Your task to perform on an android device: Open my contact list Image 0: 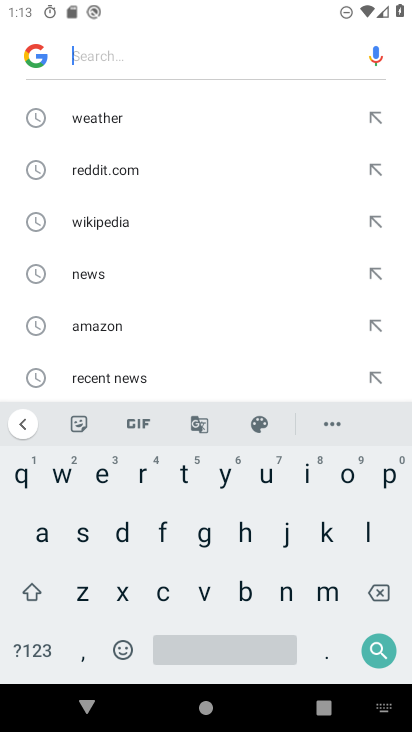
Step 0: press home button
Your task to perform on an android device: Open my contact list Image 1: 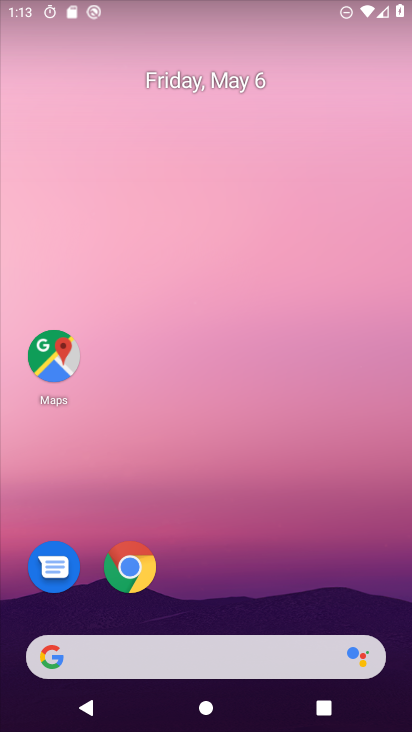
Step 1: drag from (251, 696) to (294, 209)
Your task to perform on an android device: Open my contact list Image 2: 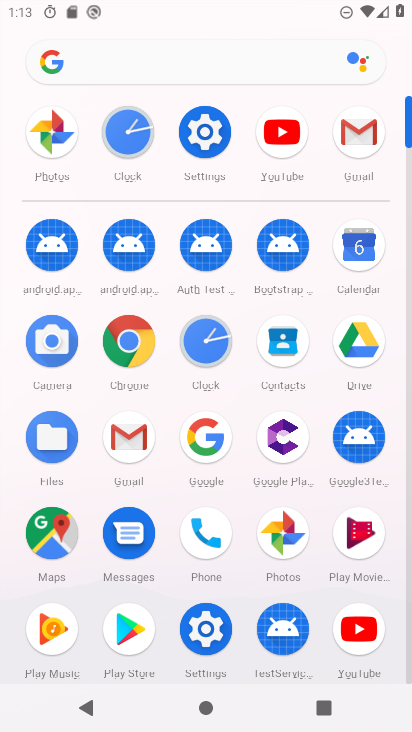
Step 2: click (211, 532)
Your task to perform on an android device: Open my contact list Image 3: 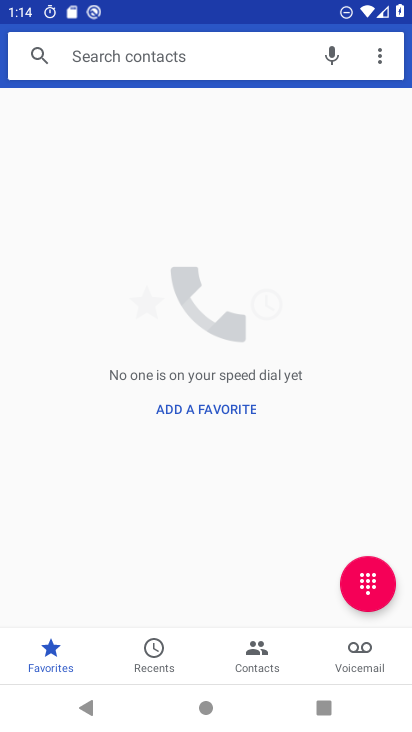
Step 3: click (254, 645)
Your task to perform on an android device: Open my contact list Image 4: 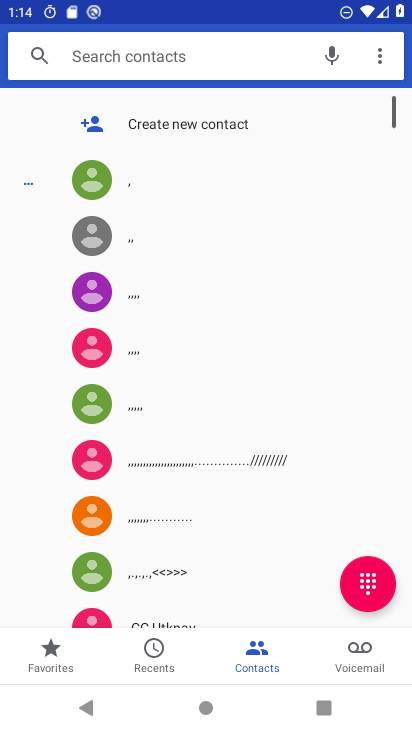
Step 4: task complete